Your task to perform on an android device: Show me popular games on the Play Store Image 0: 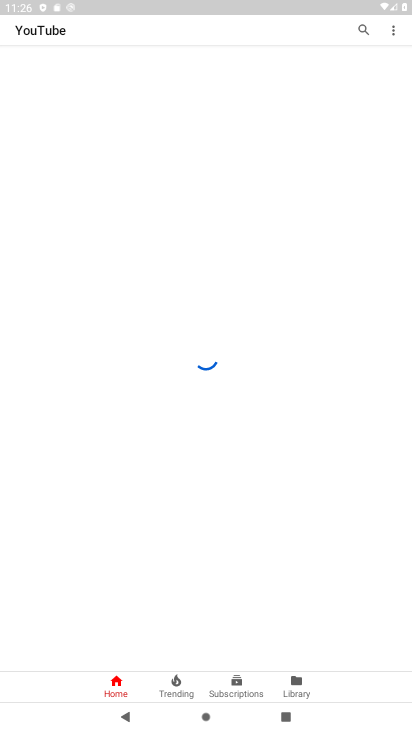
Step 0: press home button
Your task to perform on an android device: Show me popular games on the Play Store Image 1: 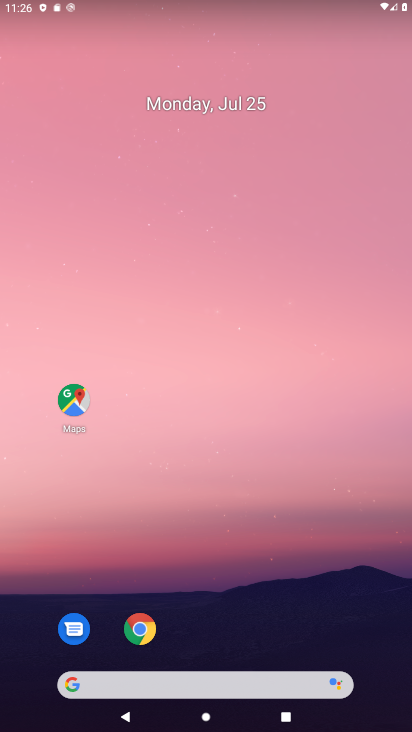
Step 1: drag from (212, 661) to (166, 7)
Your task to perform on an android device: Show me popular games on the Play Store Image 2: 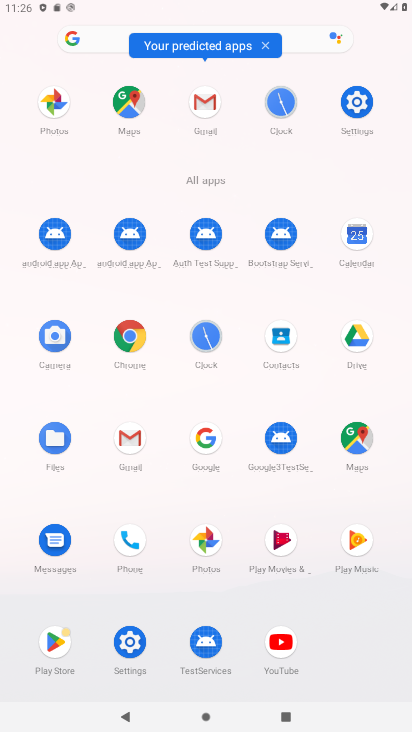
Step 2: click (55, 651)
Your task to perform on an android device: Show me popular games on the Play Store Image 3: 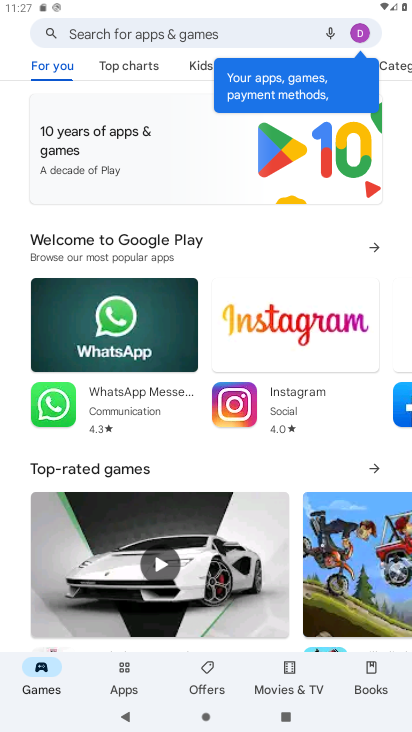
Step 3: drag from (169, 464) to (131, 8)
Your task to perform on an android device: Show me popular games on the Play Store Image 4: 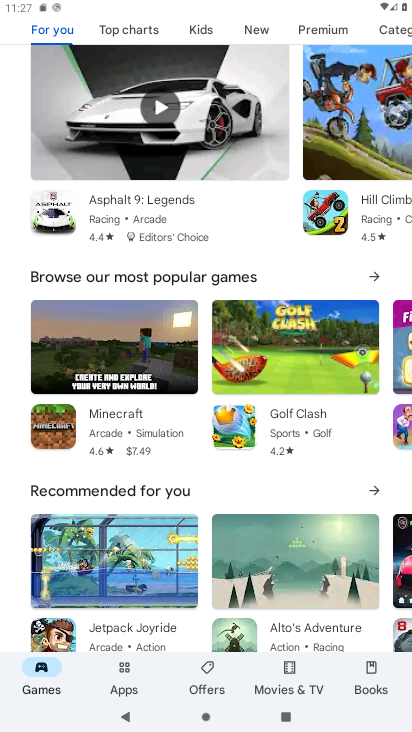
Step 4: drag from (178, 508) to (165, 334)
Your task to perform on an android device: Show me popular games on the Play Store Image 5: 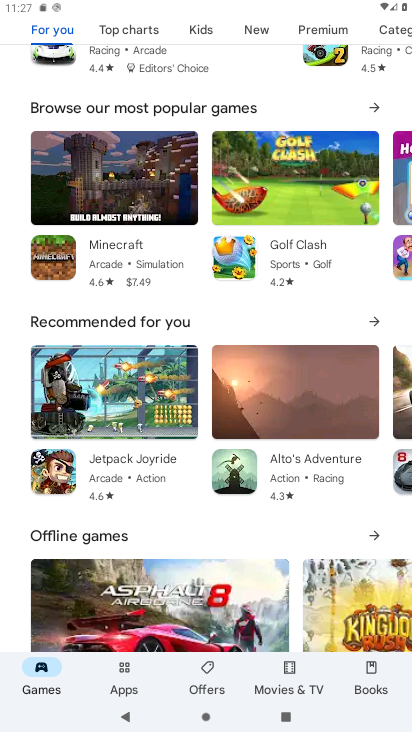
Step 5: click (369, 108)
Your task to perform on an android device: Show me popular games on the Play Store Image 6: 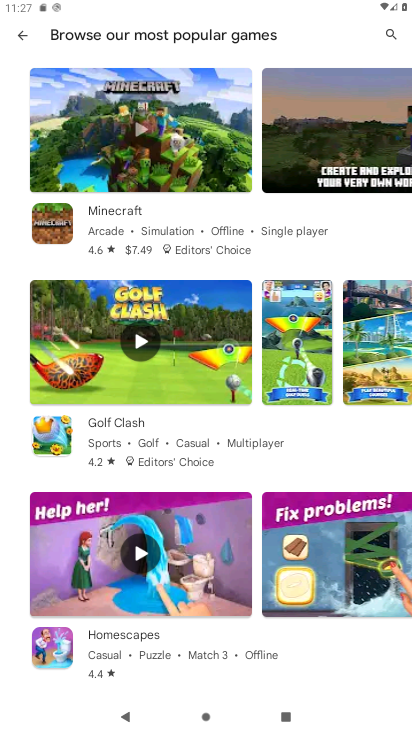
Step 6: task complete